Your task to perform on an android device: turn on wifi Image 0: 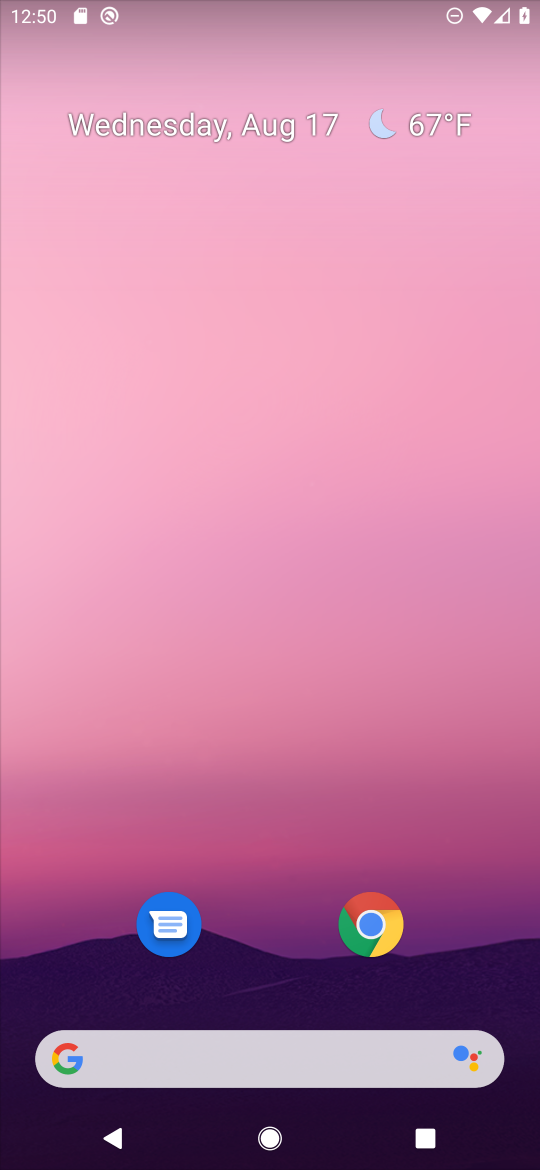
Step 0: drag from (356, 20) to (258, 860)
Your task to perform on an android device: turn on wifi Image 1: 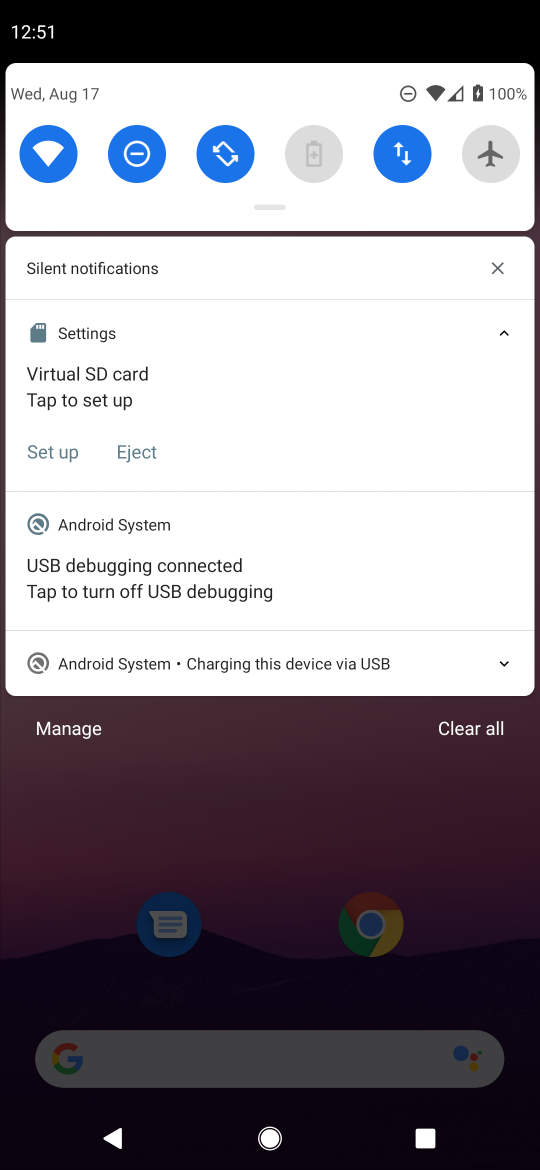
Step 1: task complete